Your task to perform on an android device: add a label to a message in the gmail app Image 0: 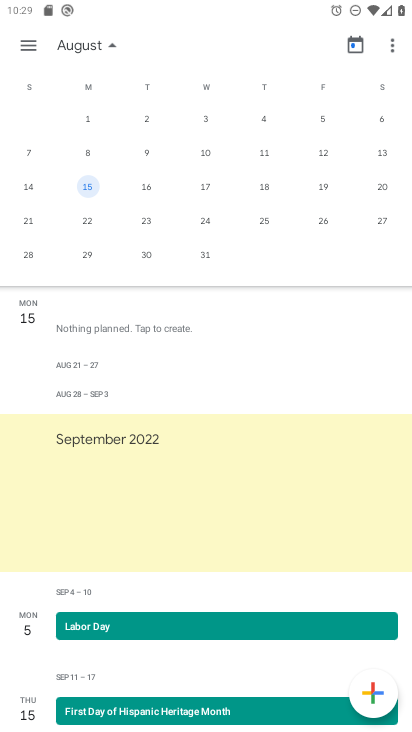
Step 0: press home button
Your task to perform on an android device: add a label to a message in the gmail app Image 1: 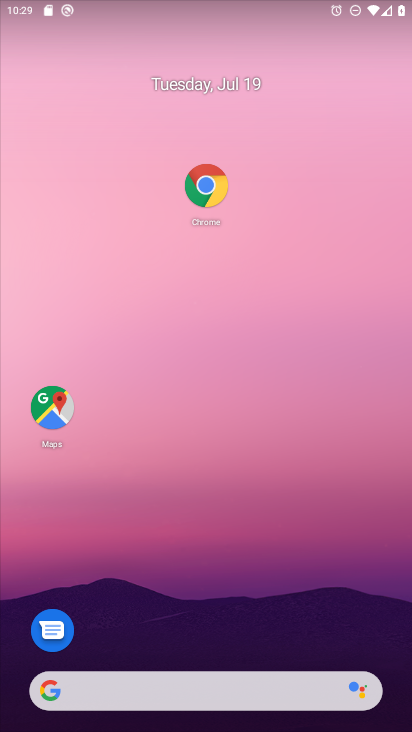
Step 1: drag from (222, 640) to (325, 147)
Your task to perform on an android device: add a label to a message in the gmail app Image 2: 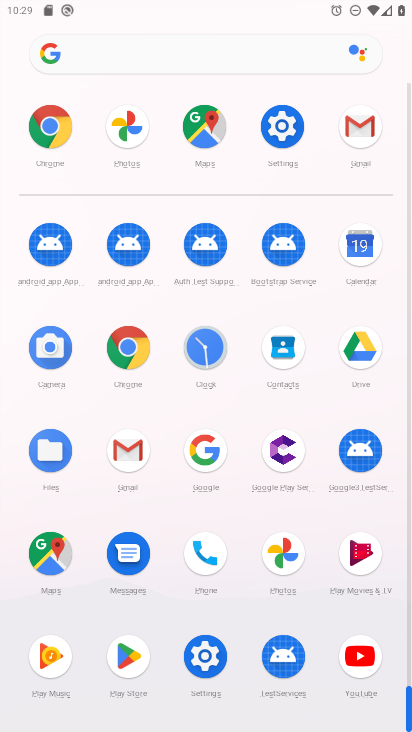
Step 2: click (134, 464)
Your task to perform on an android device: add a label to a message in the gmail app Image 3: 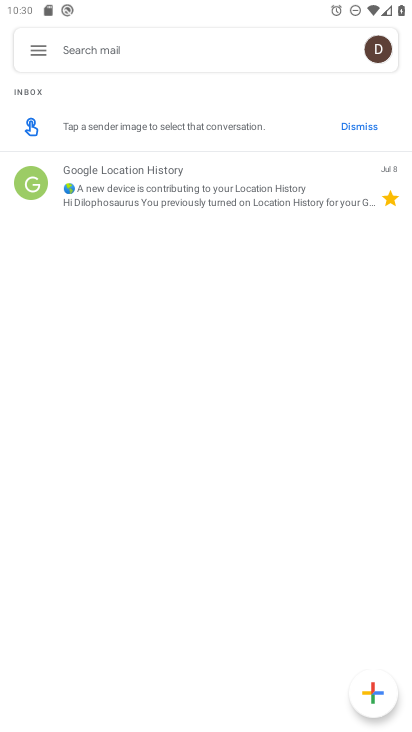
Step 3: click (114, 209)
Your task to perform on an android device: add a label to a message in the gmail app Image 4: 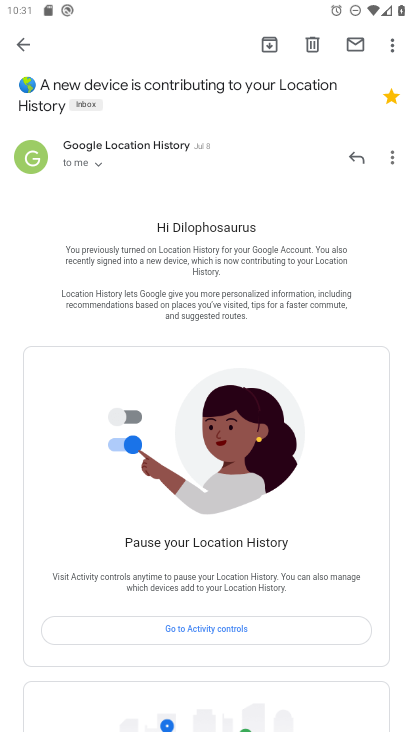
Step 4: click (387, 55)
Your task to perform on an android device: add a label to a message in the gmail app Image 5: 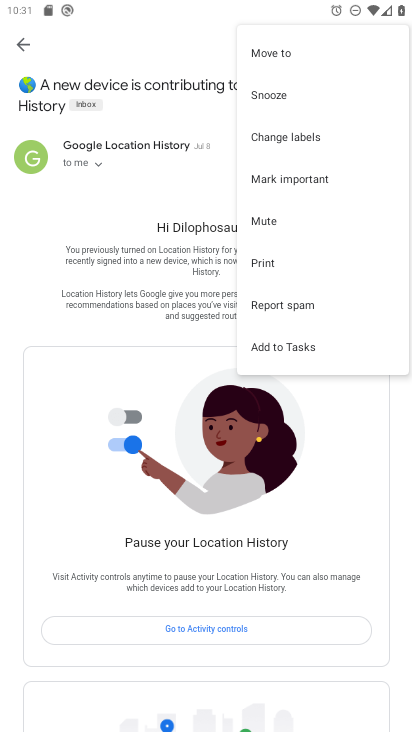
Step 5: click (322, 144)
Your task to perform on an android device: add a label to a message in the gmail app Image 6: 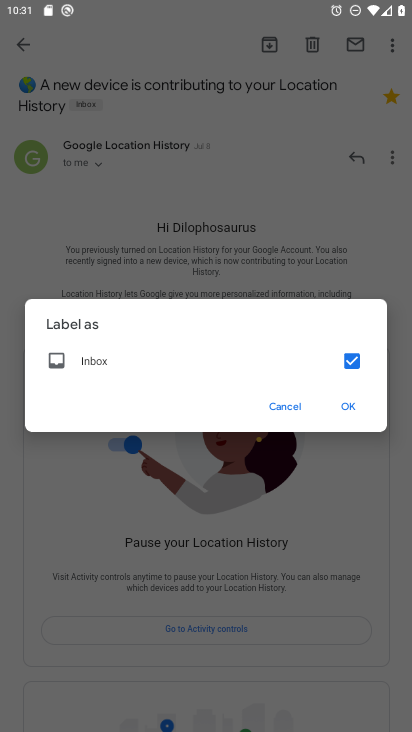
Step 6: click (344, 412)
Your task to perform on an android device: add a label to a message in the gmail app Image 7: 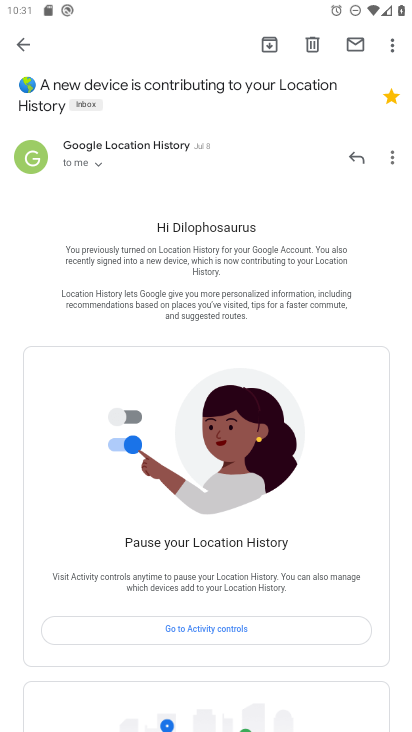
Step 7: task complete